Your task to perform on an android device: toggle priority inbox in the gmail app Image 0: 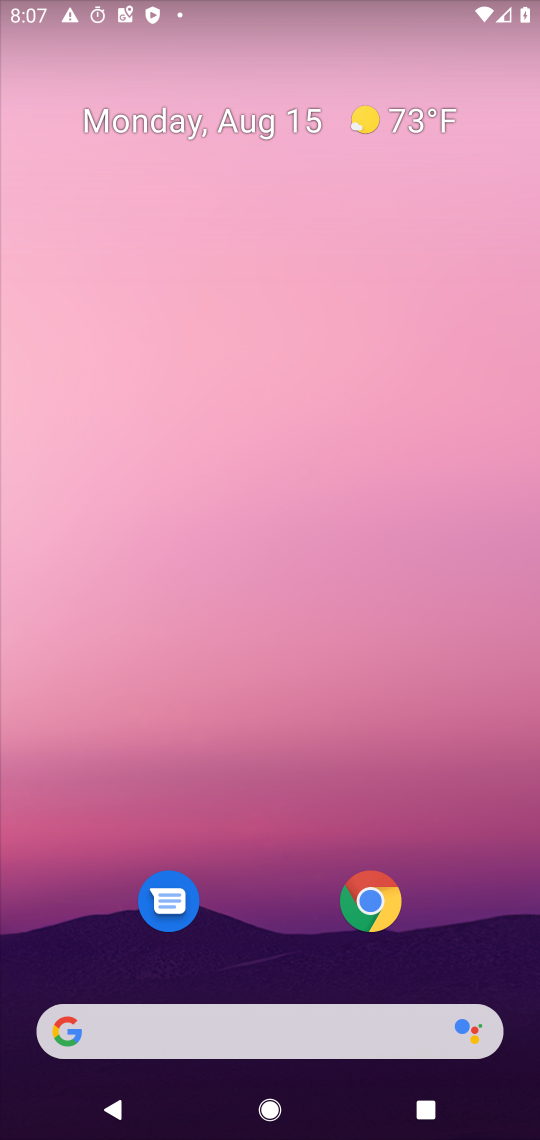
Step 0: drag from (272, 924) to (306, 342)
Your task to perform on an android device: toggle priority inbox in the gmail app Image 1: 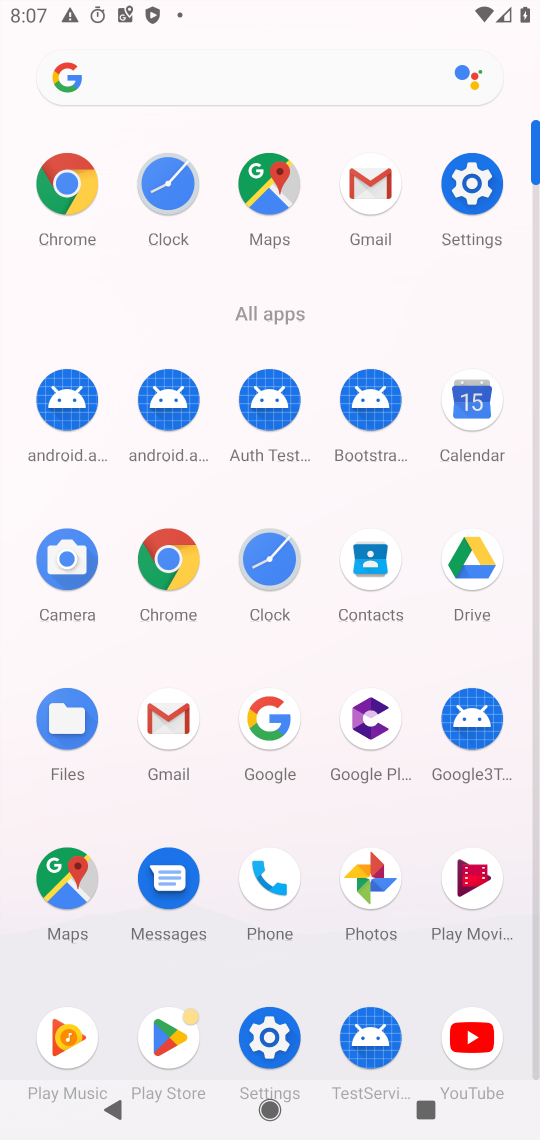
Step 1: click (171, 728)
Your task to perform on an android device: toggle priority inbox in the gmail app Image 2: 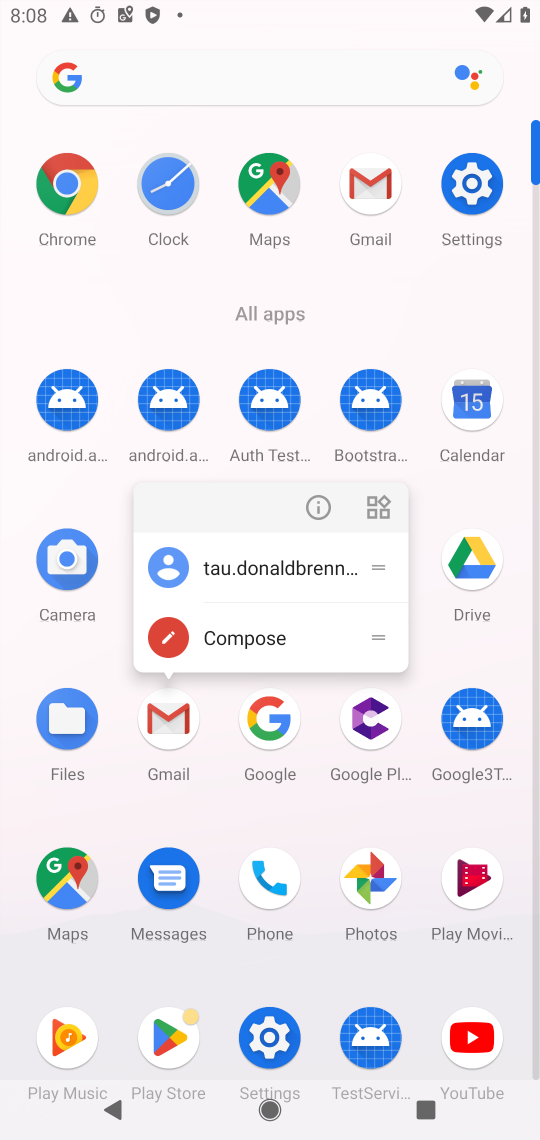
Step 2: click (188, 721)
Your task to perform on an android device: toggle priority inbox in the gmail app Image 3: 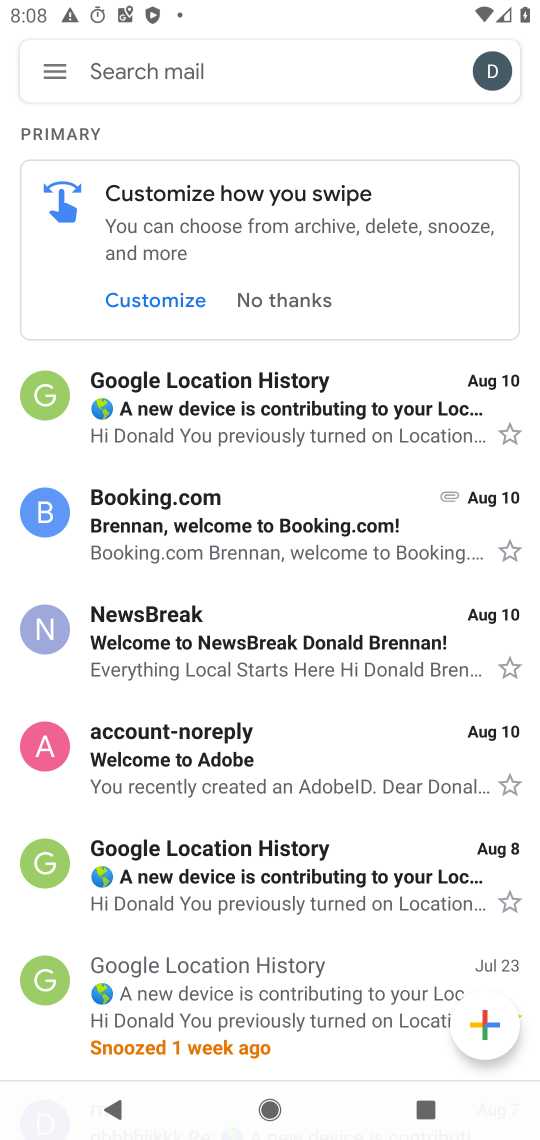
Step 3: click (55, 52)
Your task to perform on an android device: toggle priority inbox in the gmail app Image 4: 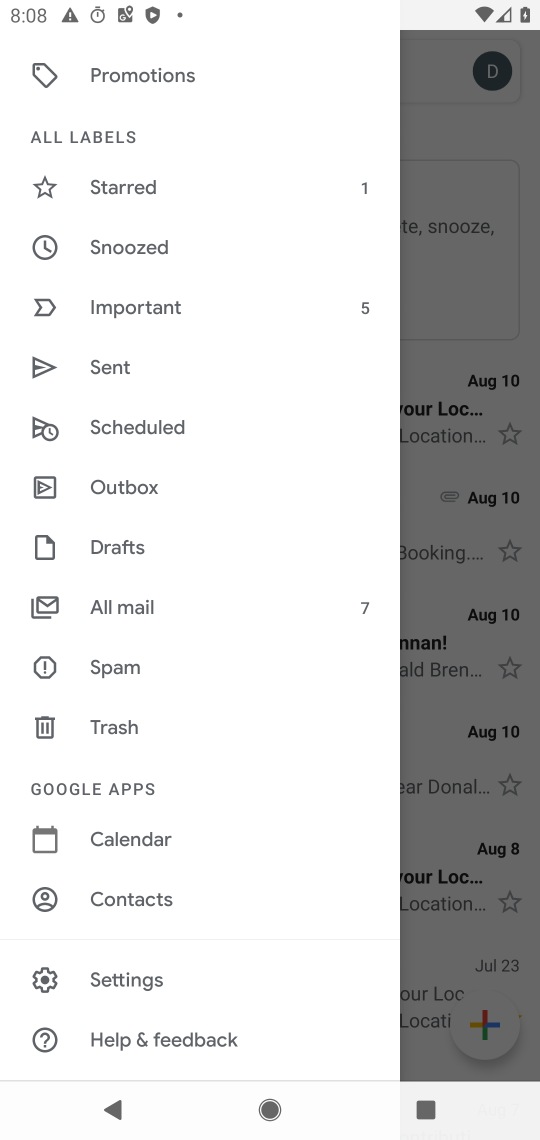
Step 4: click (145, 981)
Your task to perform on an android device: toggle priority inbox in the gmail app Image 5: 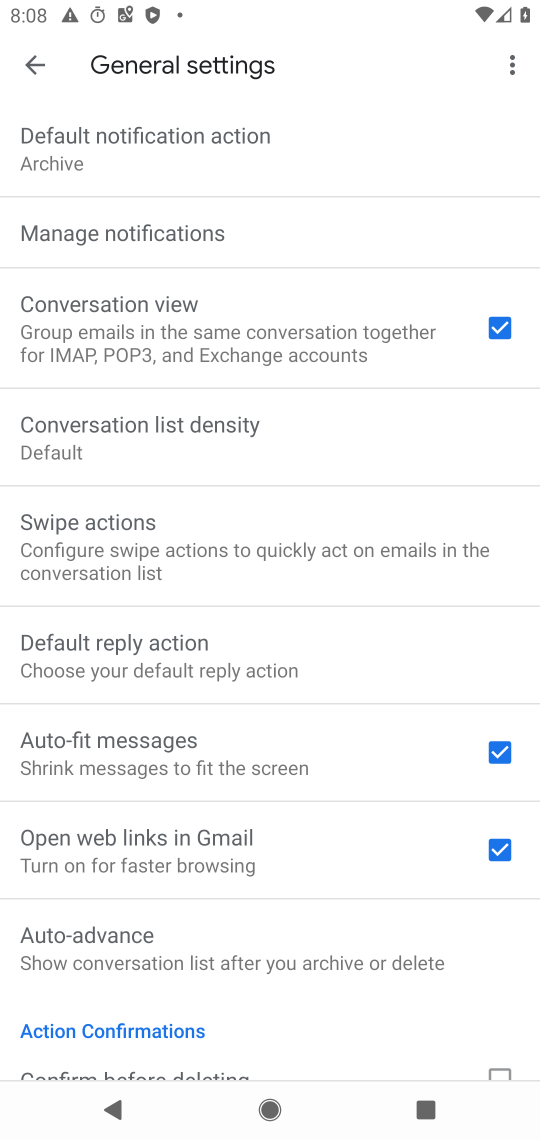
Step 5: click (35, 60)
Your task to perform on an android device: toggle priority inbox in the gmail app Image 6: 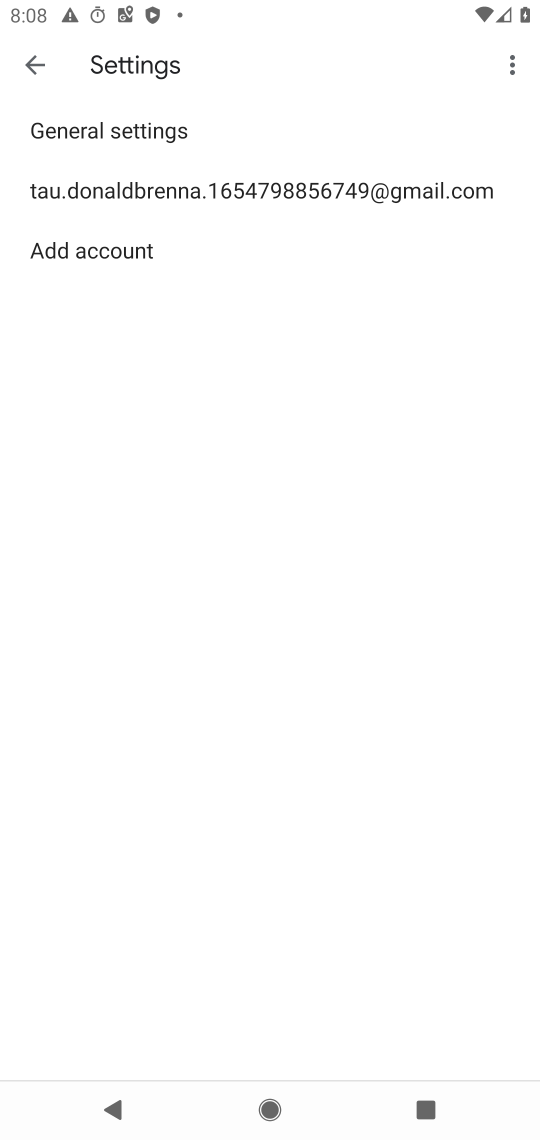
Step 6: click (223, 209)
Your task to perform on an android device: toggle priority inbox in the gmail app Image 7: 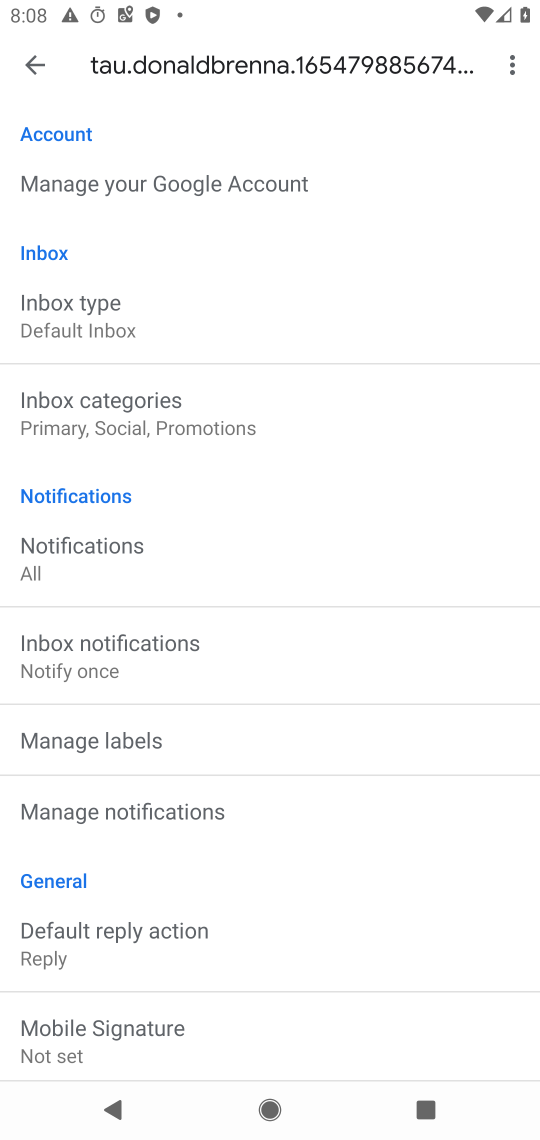
Step 7: click (95, 327)
Your task to perform on an android device: toggle priority inbox in the gmail app Image 8: 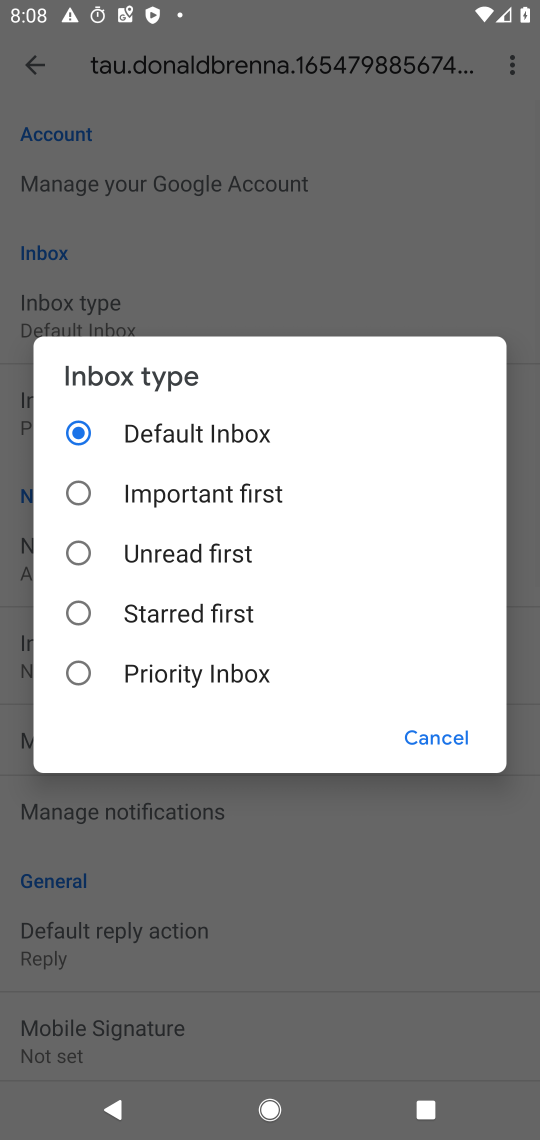
Step 8: click (119, 681)
Your task to perform on an android device: toggle priority inbox in the gmail app Image 9: 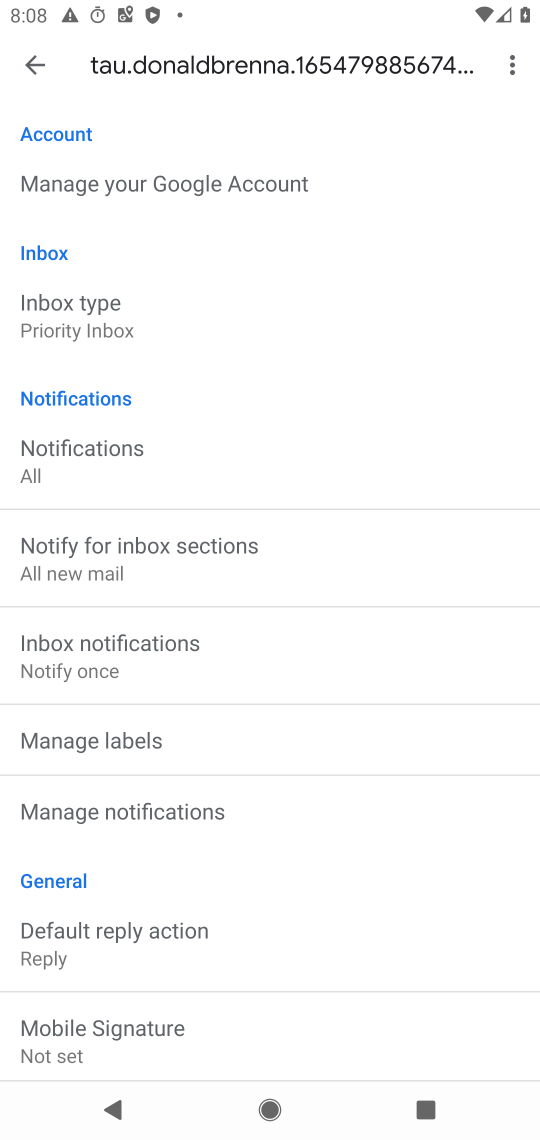
Step 9: task complete